Your task to perform on an android device: Open Google Chrome Image 0: 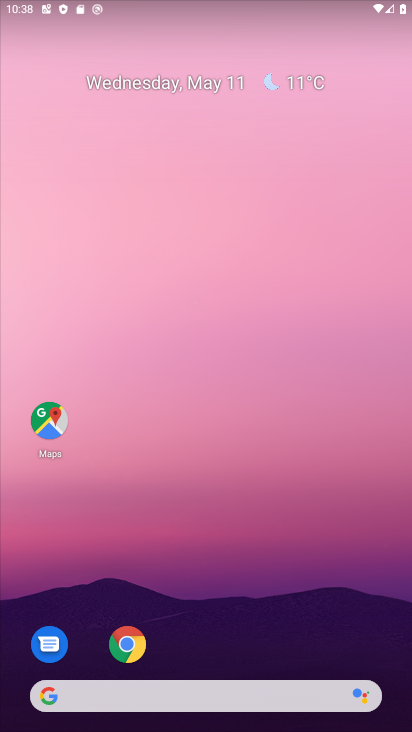
Step 0: click (130, 652)
Your task to perform on an android device: Open Google Chrome Image 1: 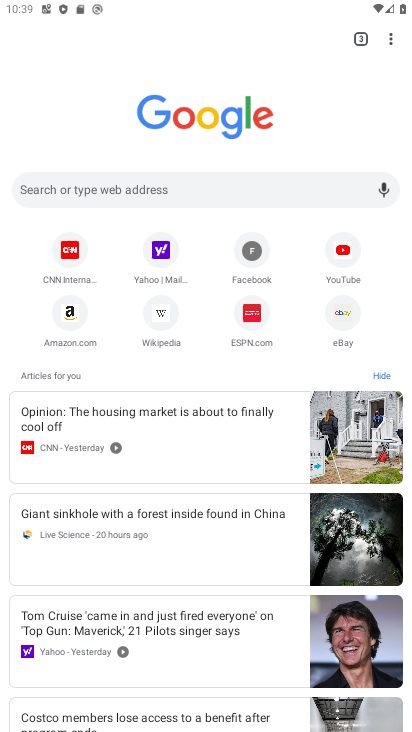
Step 1: task complete